Your task to perform on an android device: Open Maps and search for coffee Image 0: 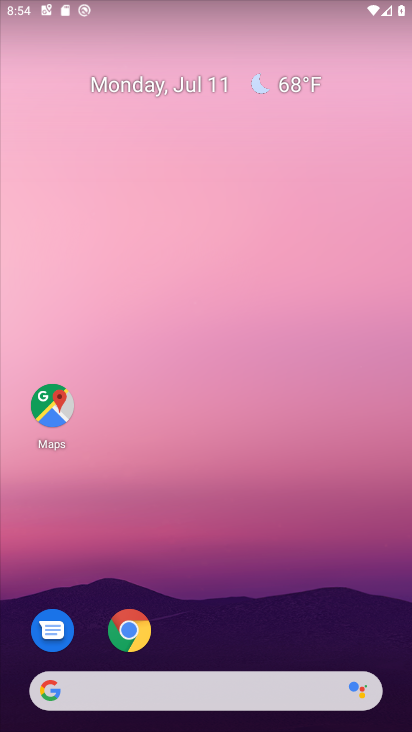
Step 0: click (48, 407)
Your task to perform on an android device: Open Maps and search for coffee Image 1: 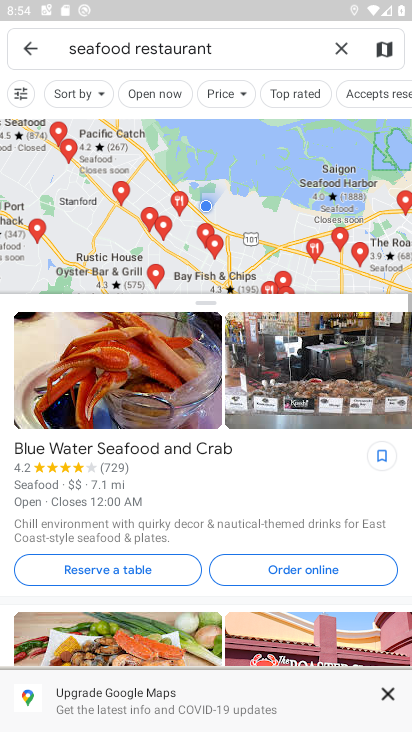
Step 1: click (345, 40)
Your task to perform on an android device: Open Maps and search for coffee Image 2: 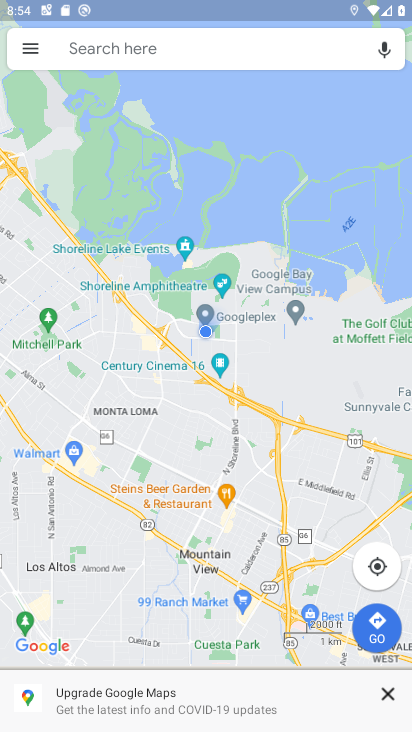
Step 2: click (193, 52)
Your task to perform on an android device: Open Maps and search for coffee Image 3: 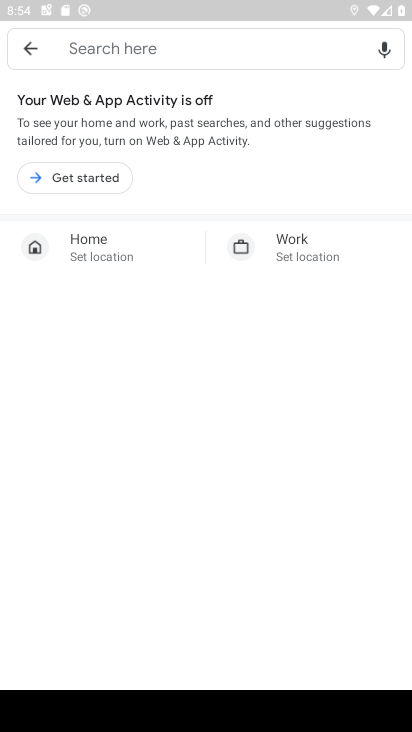
Step 3: type "coffee "
Your task to perform on an android device: Open Maps and search for coffee Image 4: 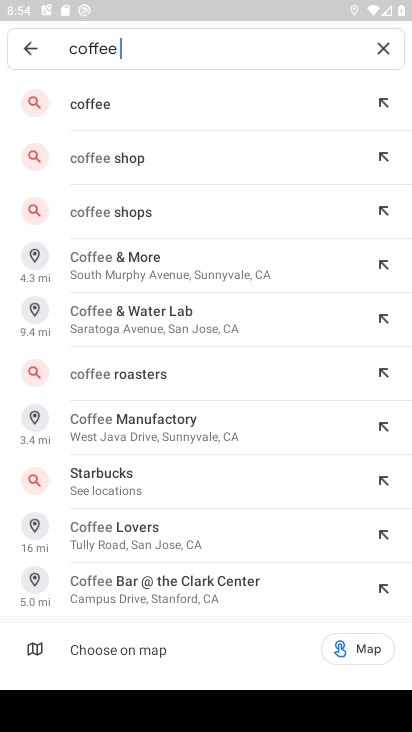
Step 4: click (116, 108)
Your task to perform on an android device: Open Maps and search for coffee Image 5: 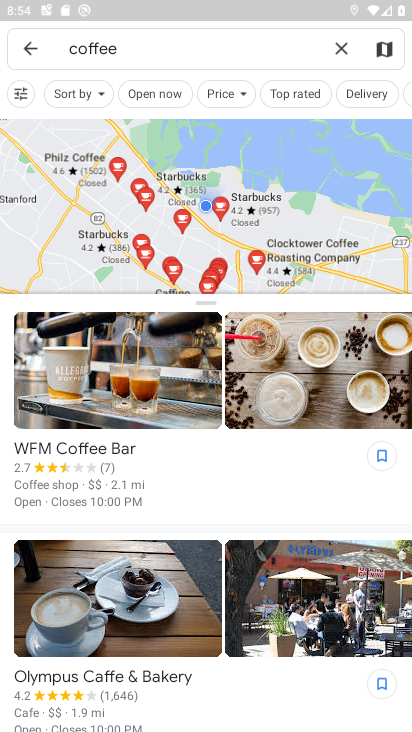
Step 5: task complete